Your task to perform on an android device: turn off translation in the chrome app Image 0: 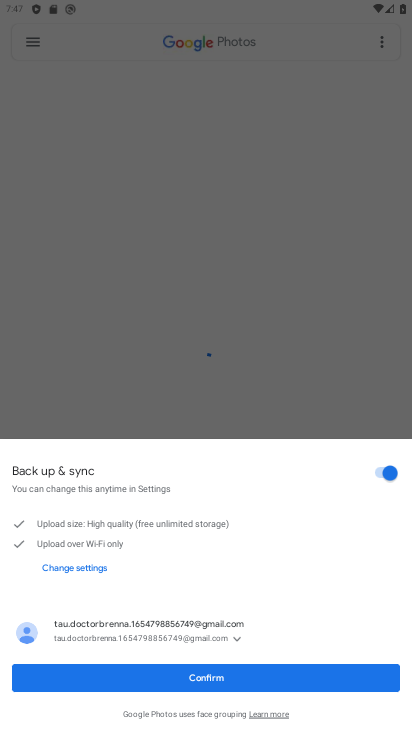
Step 0: press home button
Your task to perform on an android device: turn off translation in the chrome app Image 1: 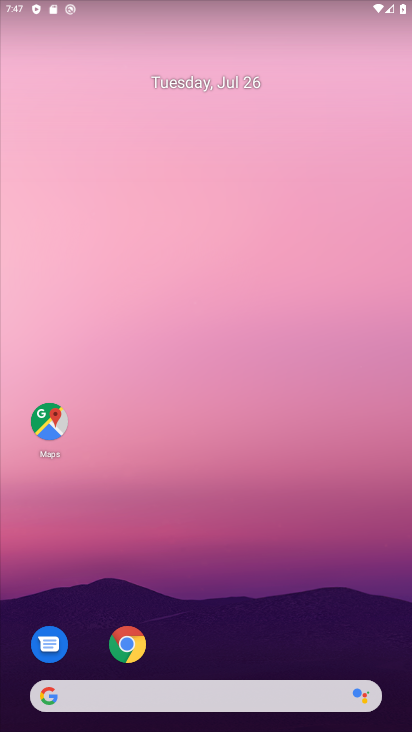
Step 1: click (128, 648)
Your task to perform on an android device: turn off translation in the chrome app Image 2: 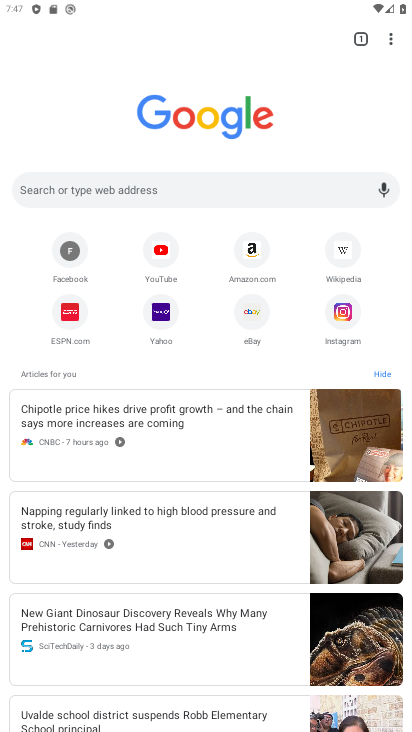
Step 2: click (400, 28)
Your task to perform on an android device: turn off translation in the chrome app Image 3: 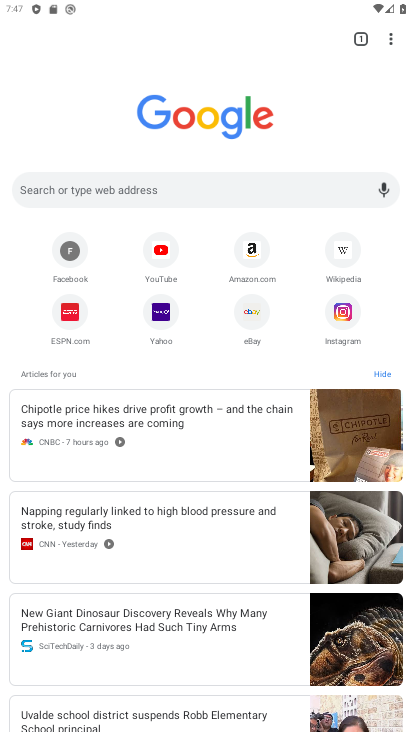
Step 3: click (389, 46)
Your task to perform on an android device: turn off translation in the chrome app Image 4: 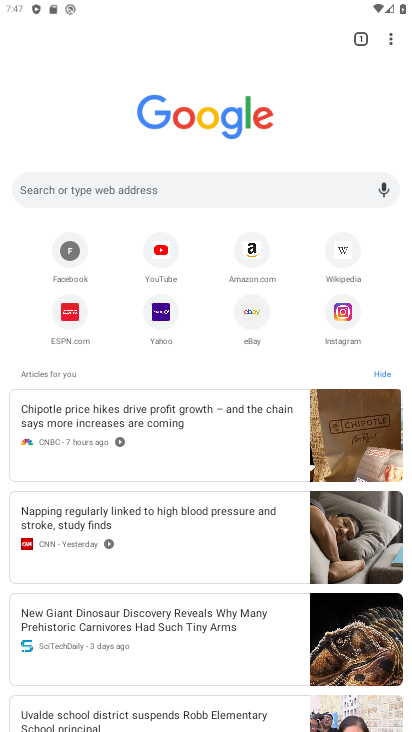
Step 4: click (399, 29)
Your task to perform on an android device: turn off translation in the chrome app Image 5: 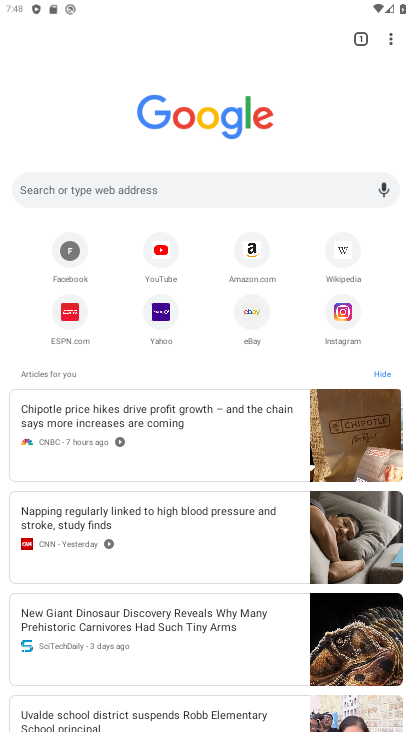
Step 5: click (393, 43)
Your task to perform on an android device: turn off translation in the chrome app Image 6: 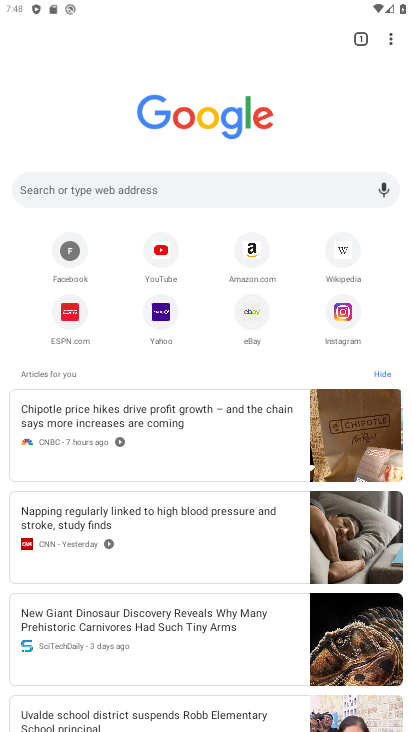
Step 6: click (393, 43)
Your task to perform on an android device: turn off translation in the chrome app Image 7: 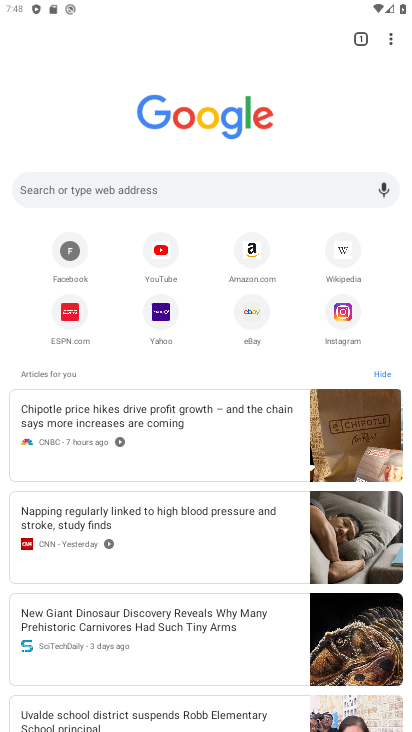
Step 7: click (393, 42)
Your task to perform on an android device: turn off translation in the chrome app Image 8: 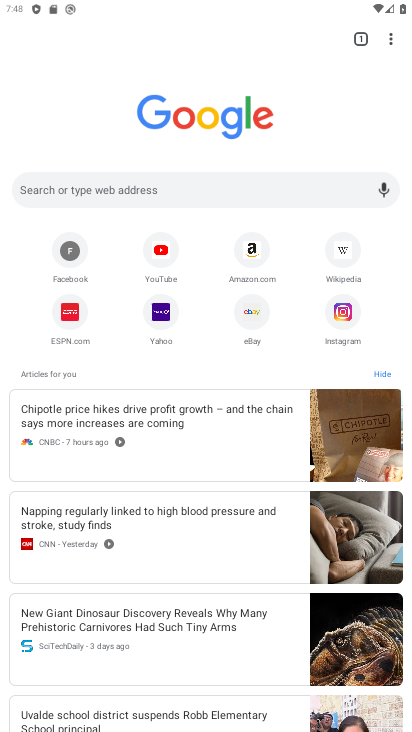
Step 8: click (393, 42)
Your task to perform on an android device: turn off translation in the chrome app Image 9: 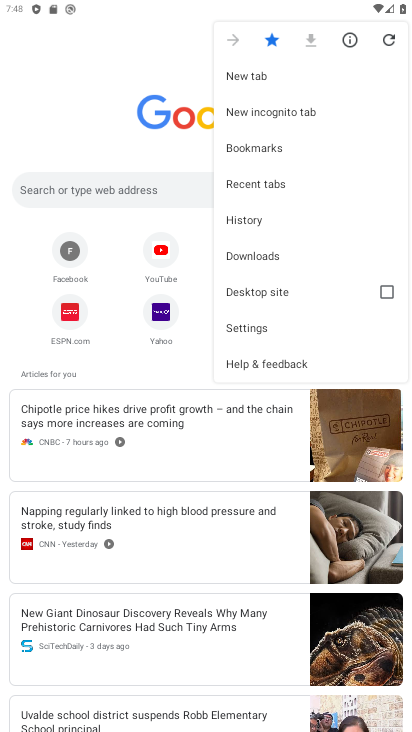
Step 9: click (248, 327)
Your task to perform on an android device: turn off translation in the chrome app Image 10: 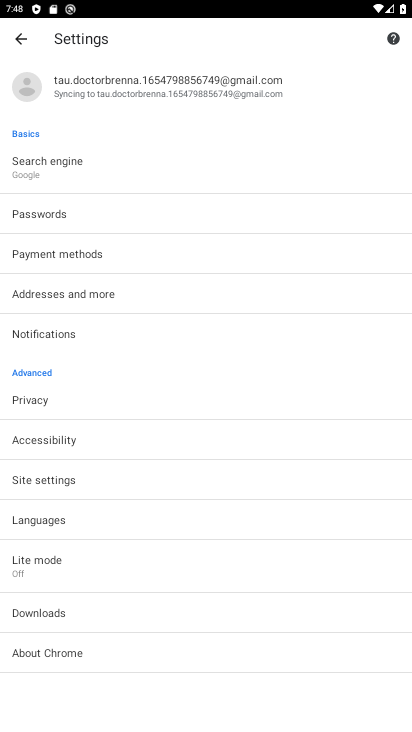
Step 10: click (78, 514)
Your task to perform on an android device: turn off translation in the chrome app Image 11: 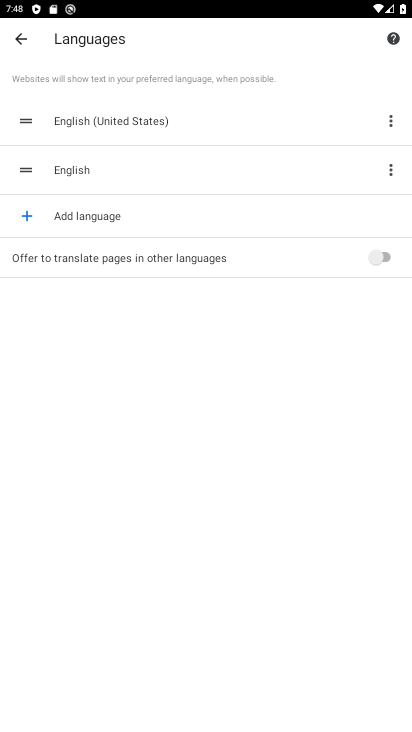
Step 11: click (385, 254)
Your task to perform on an android device: turn off translation in the chrome app Image 12: 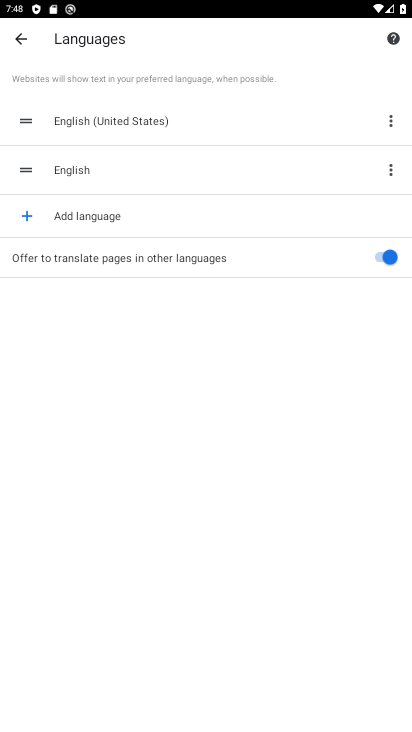
Step 12: click (389, 249)
Your task to perform on an android device: turn off translation in the chrome app Image 13: 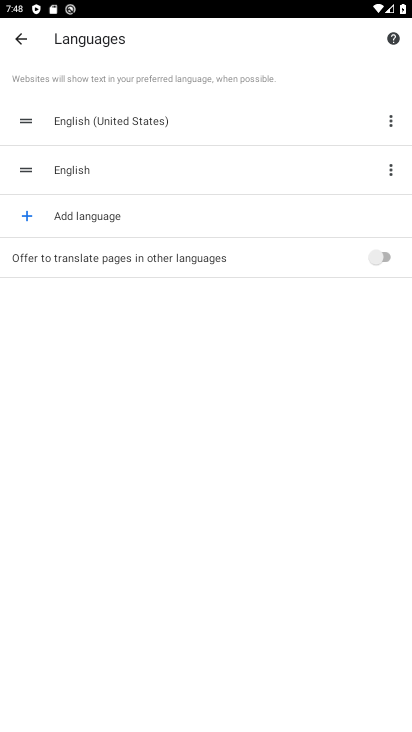
Step 13: task complete